Your task to perform on an android device: delete the emails in spam in the gmail app Image 0: 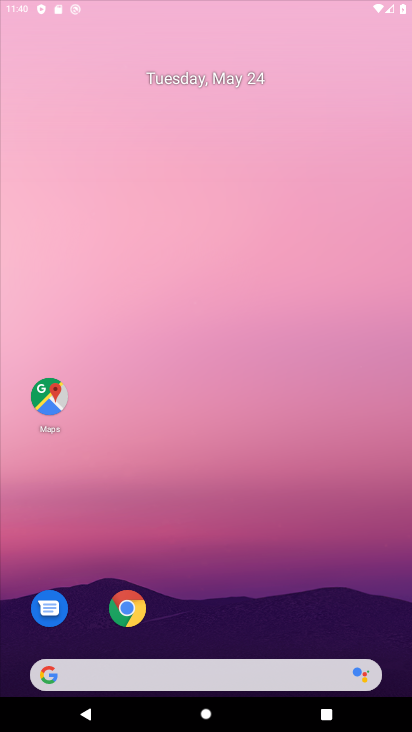
Step 0: drag from (176, 645) to (223, 136)
Your task to perform on an android device: delete the emails in spam in the gmail app Image 1: 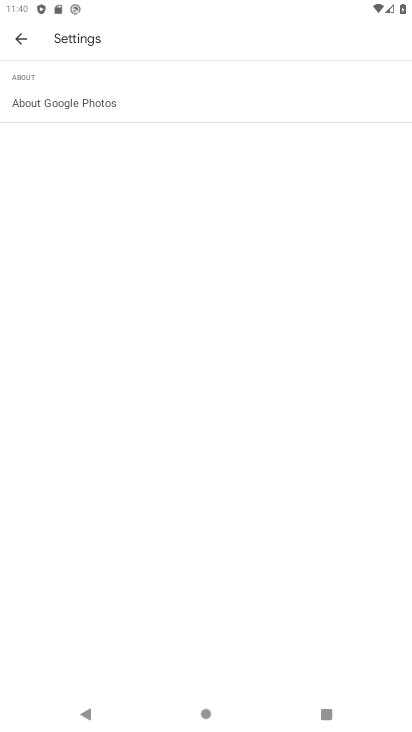
Step 1: press home button
Your task to perform on an android device: delete the emails in spam in the gmail app Image 2: 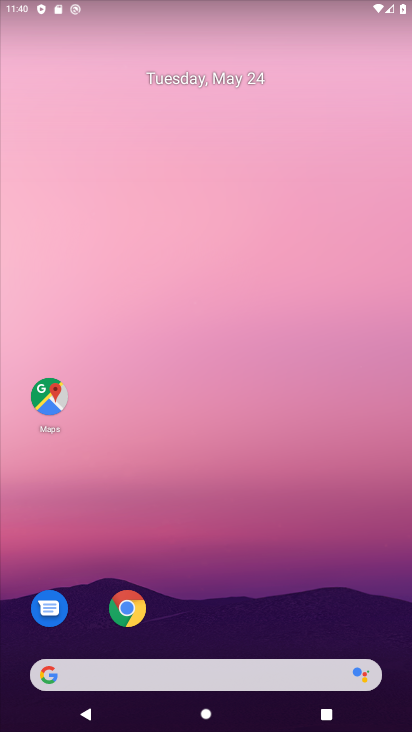
Step 2: drag from (141, 653) to (218, 93)
Your task to perform on an android device: delete the emails in spam in the gmail app Image 3: 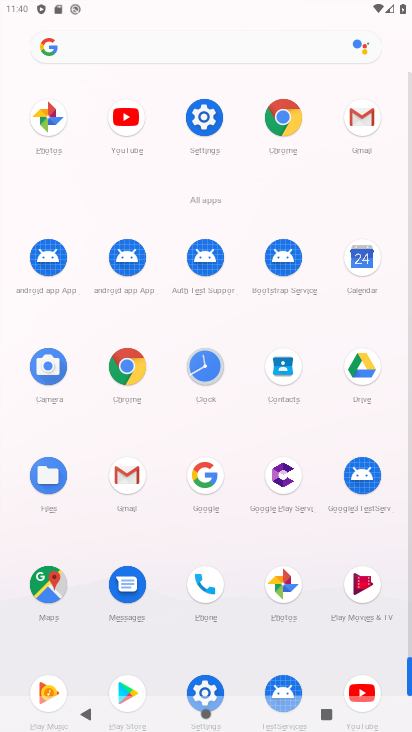
Step 3: click (137, 483)
Your task to perform on an android device: delete the emails in spam in the gmail app Image 4: 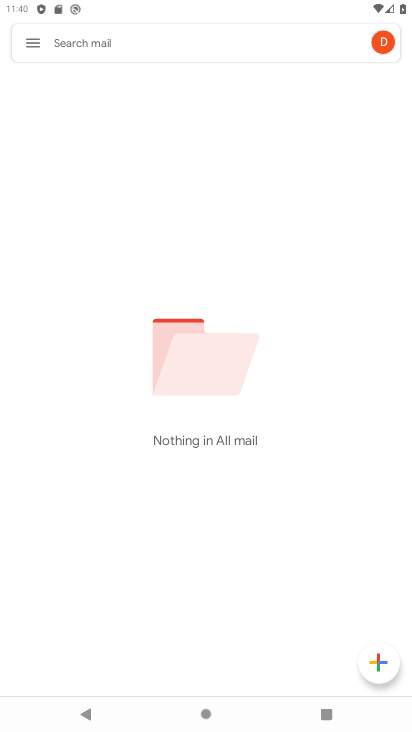
Step 4: click (42, 48)
Your task to perform on an android device: delete the emails in spam in the gmail app Image 5: 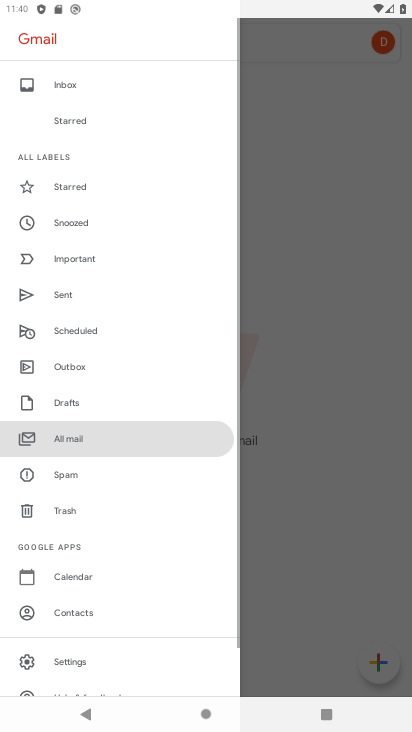
Step 5: drag from (128, 632) to (152, 456)
Your task to perform on an android device: delete the emails in spam in the gmail app Image 6: 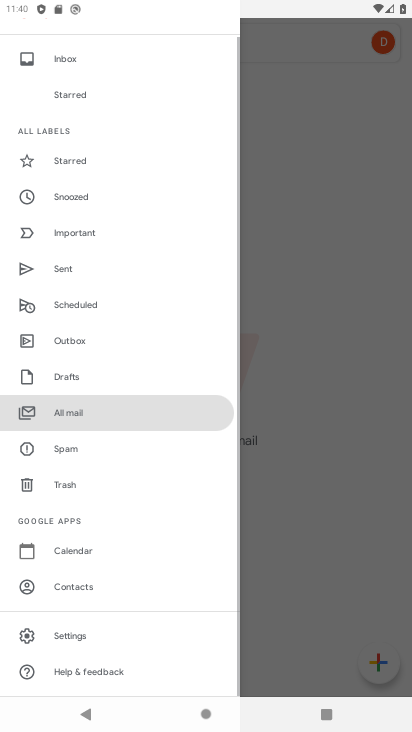
Step 6: click (88, 453)
Your task to perform on an android device: delete the emails in spam in the gmail app Image 7: 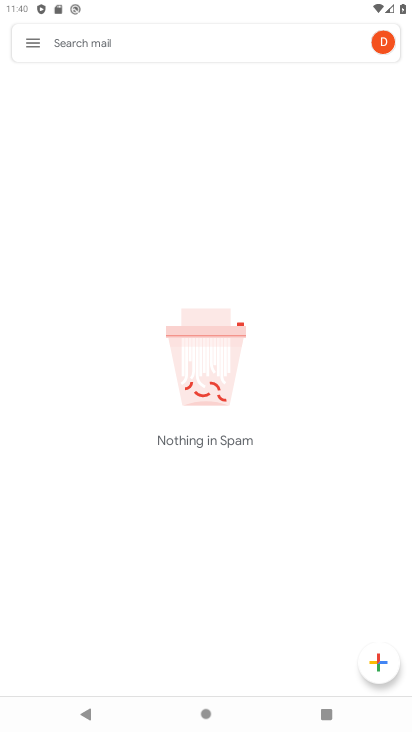
Step 7: task complete